Your task to perform on an android device: turn off picture-in-picture Image 0: 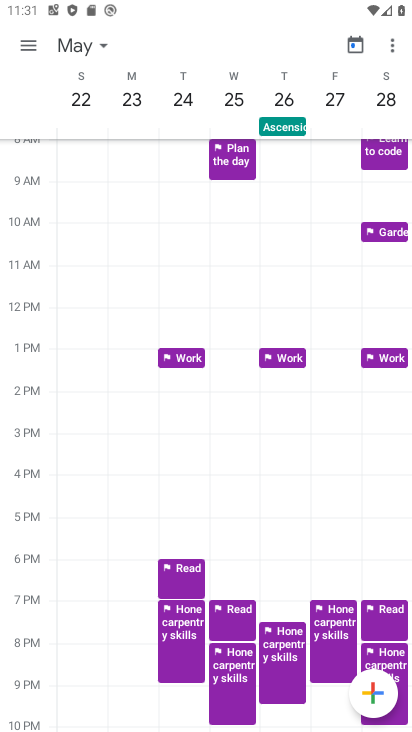
Step 0: press back button
Your task to perform on an android device: turn off picture-in-picture Image 1: 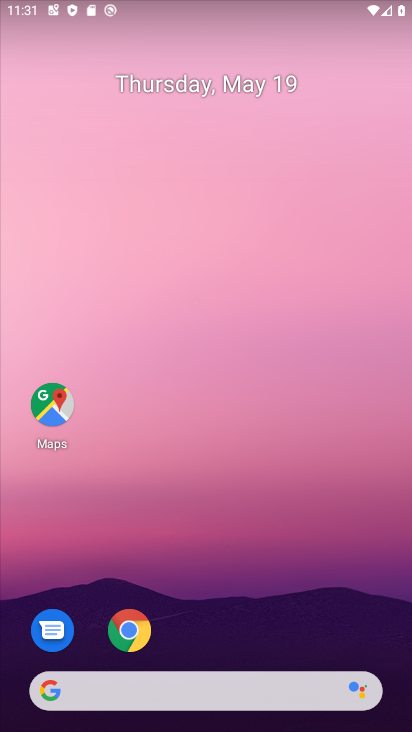
Step 1: click (127, 626)
Your task to perform on an android device: turn off picture-in-picture Image 2: 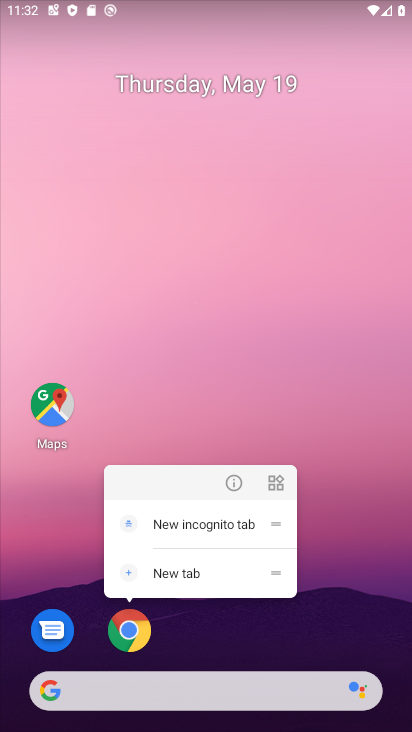
Step 2: click (230, 479)
Your task to perform on an android device: turn off picture-in-picture Image 3: 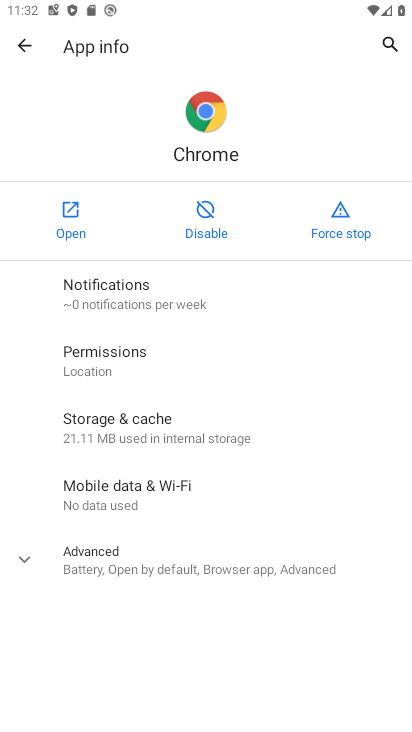
Step 3: click (130, 574)
Your task to perform on an android device: turn off picture-in-picture Image 4: 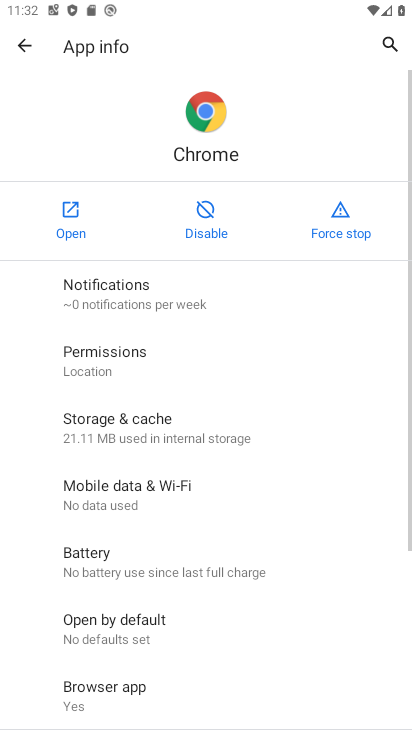
Step 4: drag from (118, 595) to (158, 465)
Your task to perform on an android device: turn off picture-in-picture Image 5: 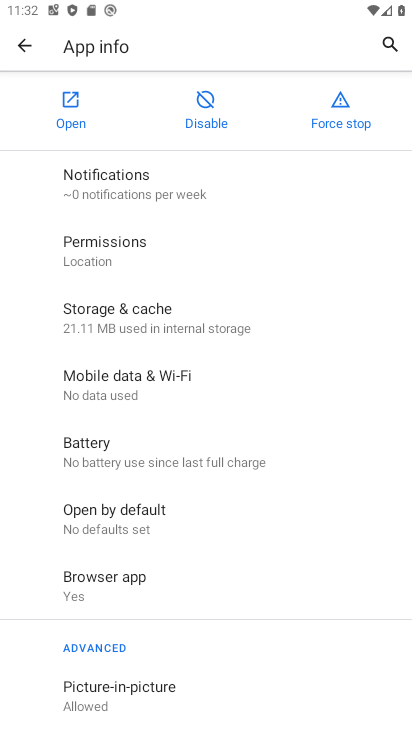
Step 5: drag from (152, 580) to (180, 479)
Your task to perform on an android device: turn off picture-in-picture Image 6: 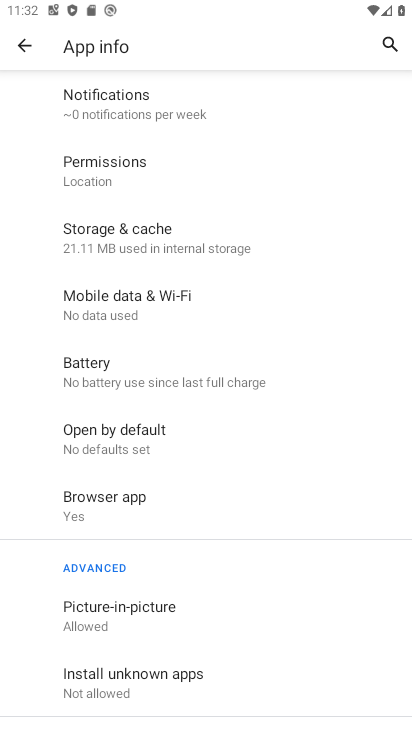
Step 6: click (110, 610)
Your task to perform on an android device: turn off picture-in-picture Image 7: 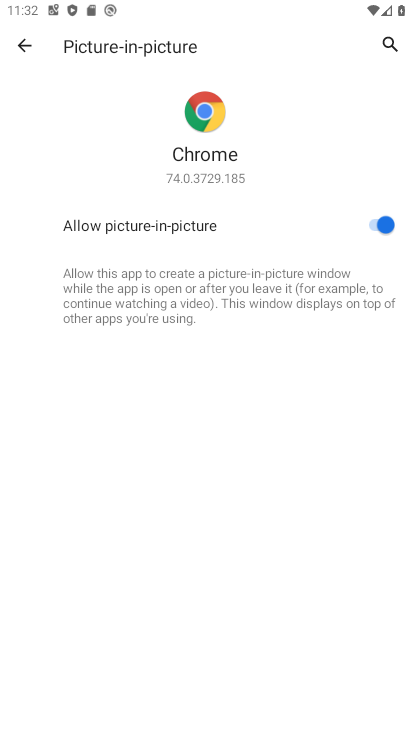
Step 7: click (387, 224)
Your task to perform on an android device: turn off picture-in-picture Image 8: 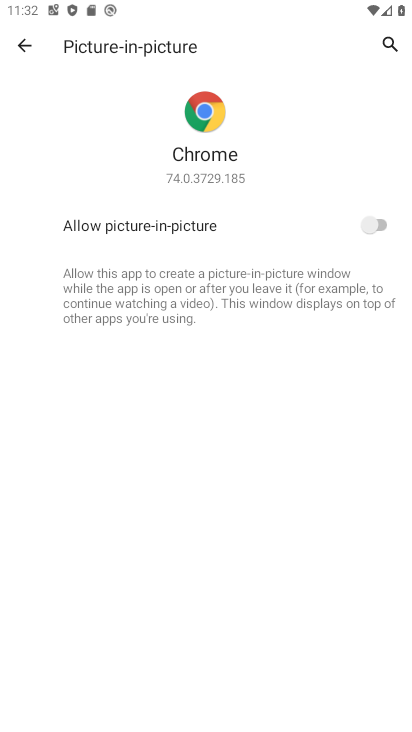
Step 8: task complete